Your task to perform on an android device: What is the recent news? Image 0: 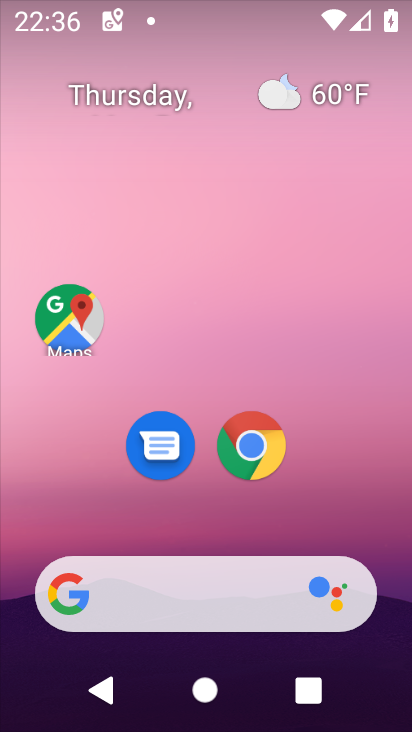
Step 0: drag from (24, 434) to (376, 442)
Your task to perform on an android device: What is the recent news? Image 1: 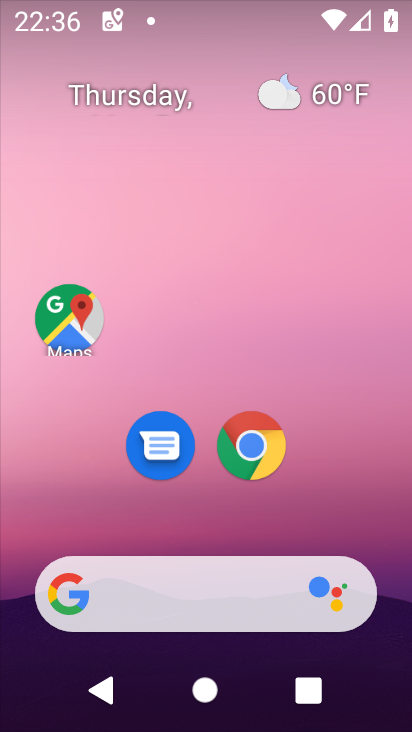
Step 1: task complete